Your task to perform on an android device: Go to Reddit.com Image 0: 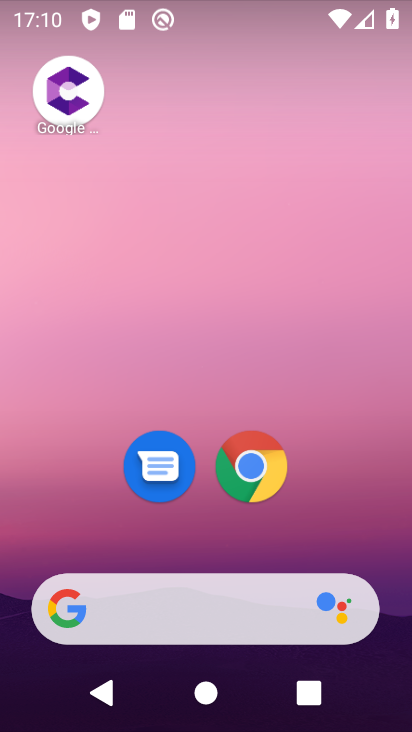
Step 0: click (178, 600)
Your task to perform on an android device: Go to Reddit.com Image 1: 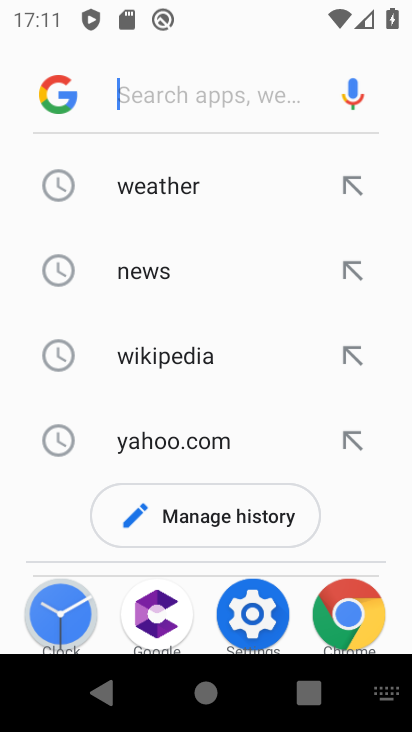
Step 1: type "reddit.com"
Your task to perform on an android device: Go to Reddit.com Image 2: 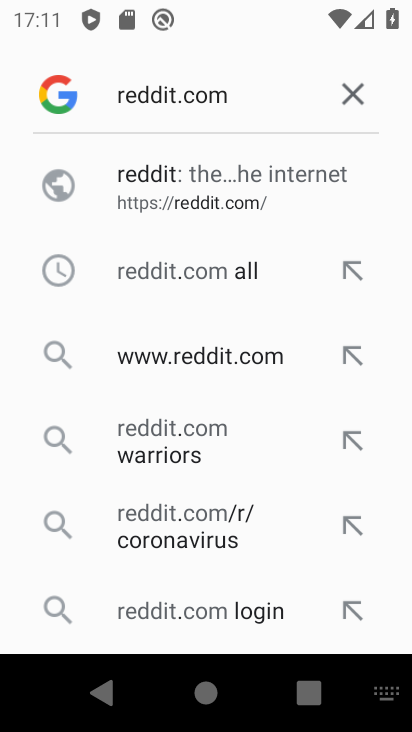
Step 2: click (216, 181)
Your task to perform on an android device: Go to Reddit.com Image 3: 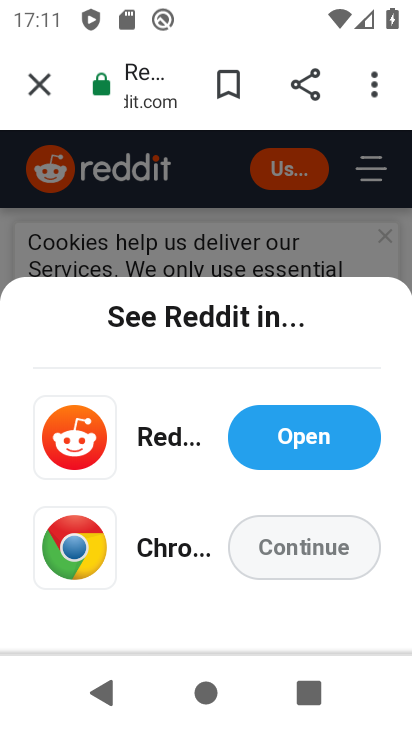
Step 3: task complete